Your task to perform on an android device: allow notifications from all sites in the chrome app Image 0: 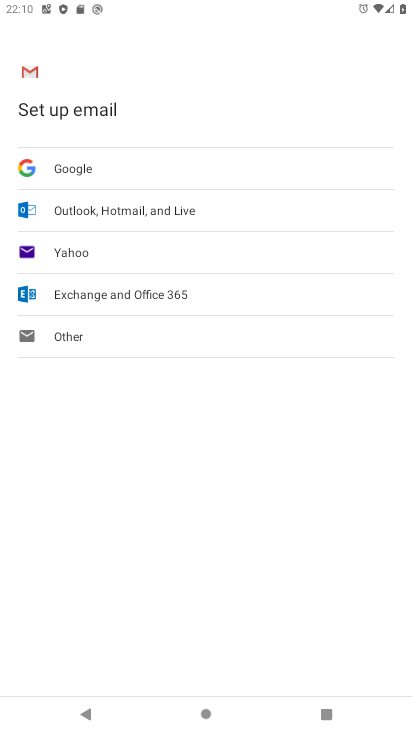
Step 0: drag from (96, 580) to (167, 408)
Your task to perform on an android device: allow notifications from all sites in the chrome app Image 1: 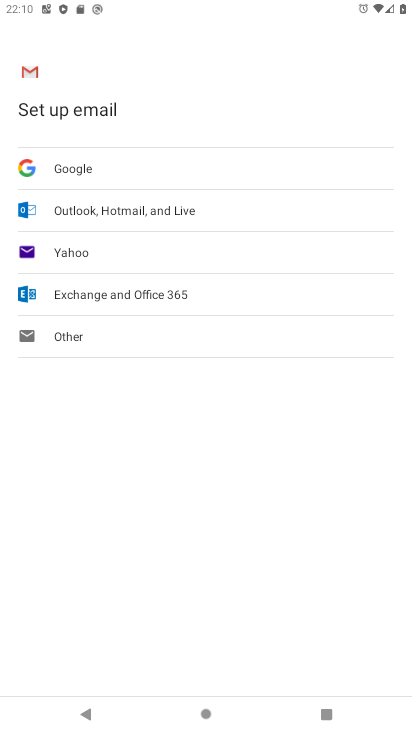
Step 1: press home button
Your task to perform on an android device: allow notifications from all sites in the chrome app Image 2: 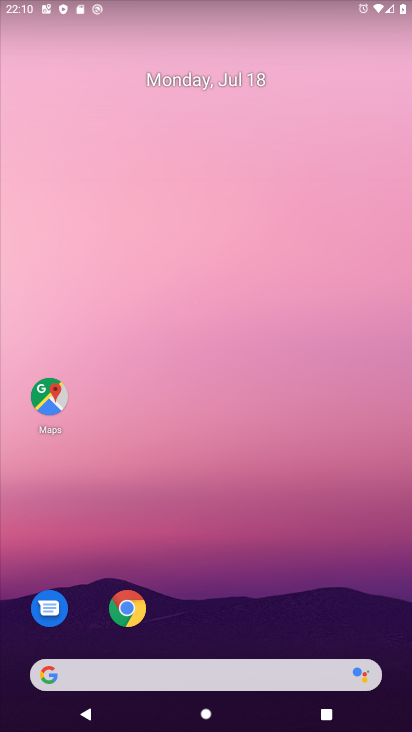
Step 2: click (139, 590)
Your task to perform on an android device: allow notifications from all sites in the chrome app Image 3: 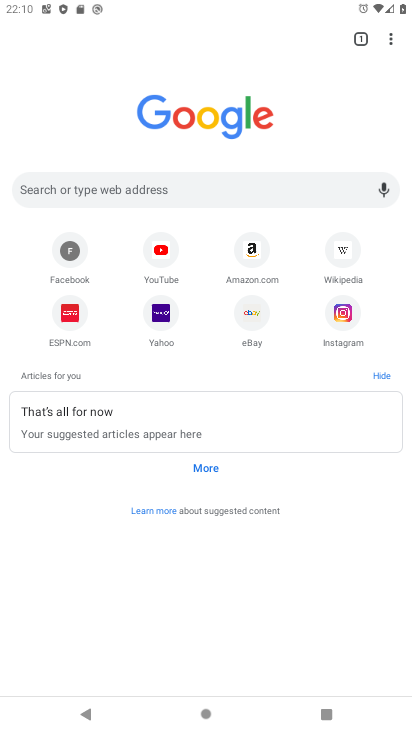
Step 3: click (395, 31)
Your task to perform on an android device: allow notifications from all sites in the chrome app Image 4: 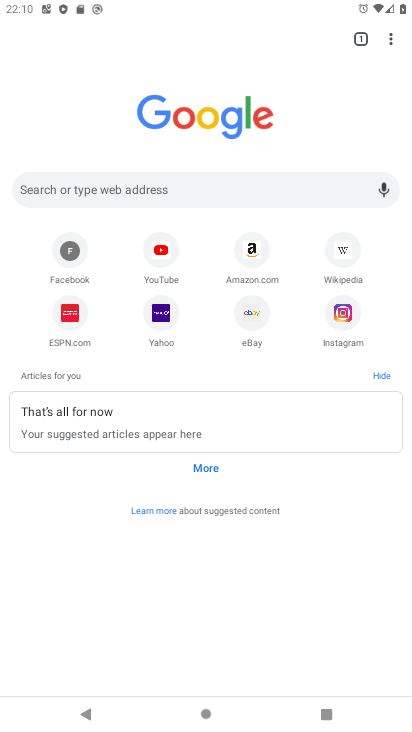
Step 4: click (393, 39)
Your task to perform on an android device: allow notifications from all sites in the chrome app Image 5: 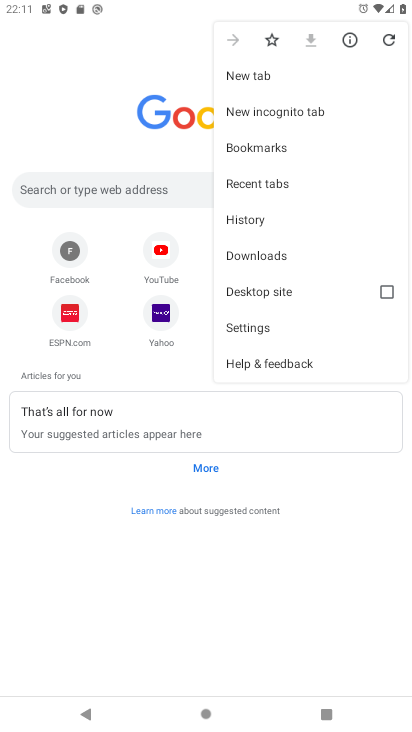
Step 5: click (260, 320)
Your task to perform on an android device: allow notifications from all sites in the chrome app Image 6: 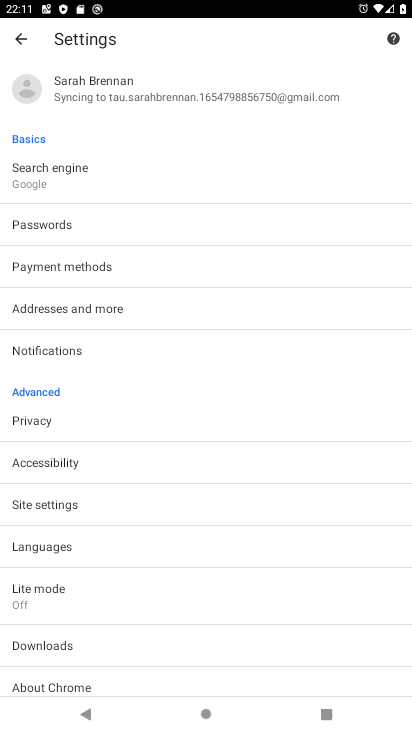
Step 6: click (52, 495)
Your task to perform on an android device: allow notifications from all sites in the chrome app Image 7: 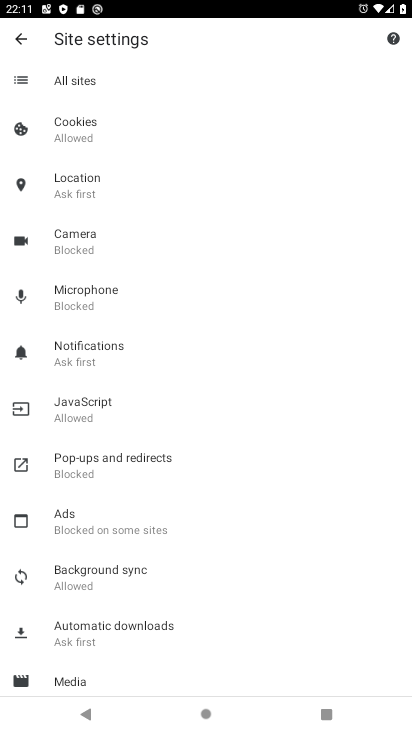
Step 7: click (84, 359)
Your task to perform on an android device: allow notifications from all sites in the chrome app Image 8: 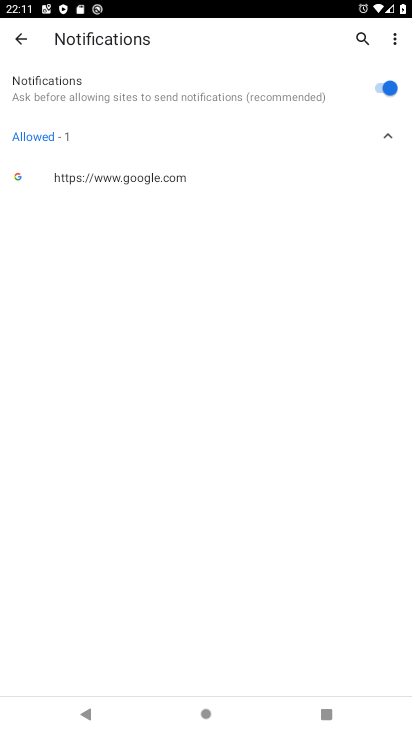
Step 8: task complete